Your task to perform on an android device: uninstall "Contacts" Image 0: 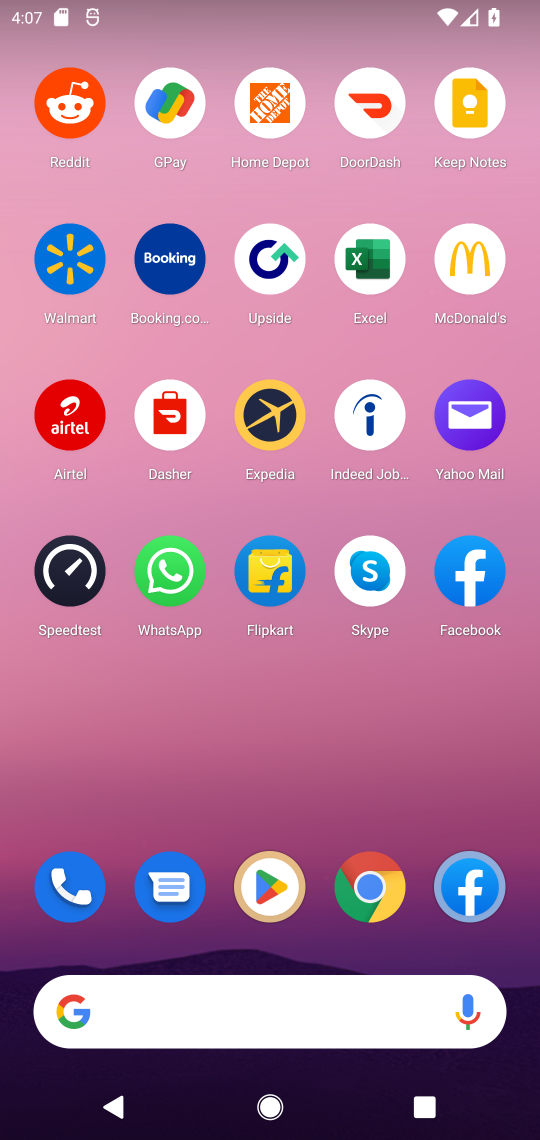
Step 0: click (251, 902)
Your task to perform on an android device: uninstall "Contacts" Image 1: 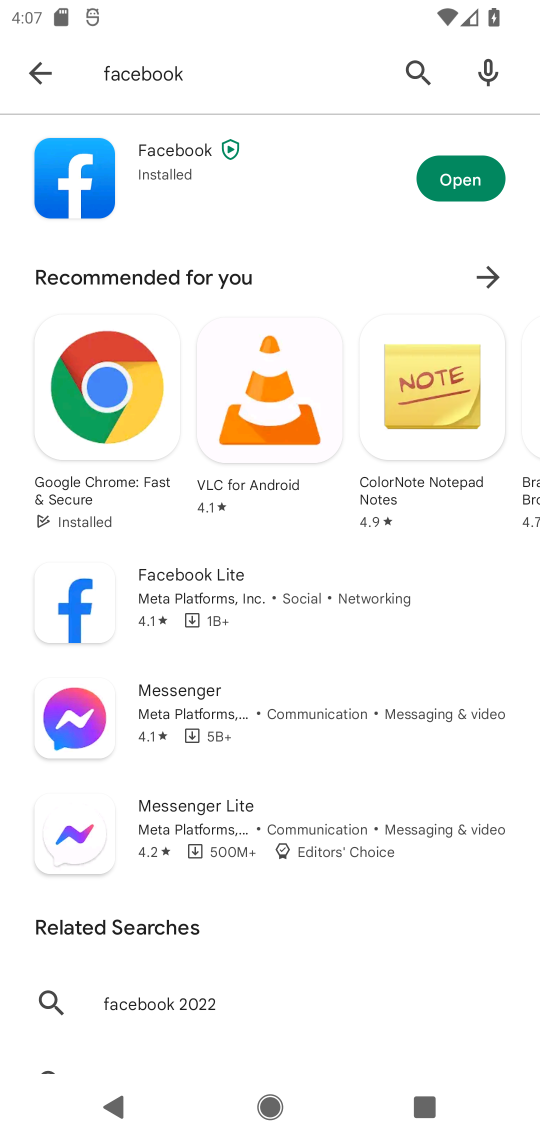
Step 1: click (34, 72)
Your task to perform on an android device: uninstall "Contacts" Image 2: 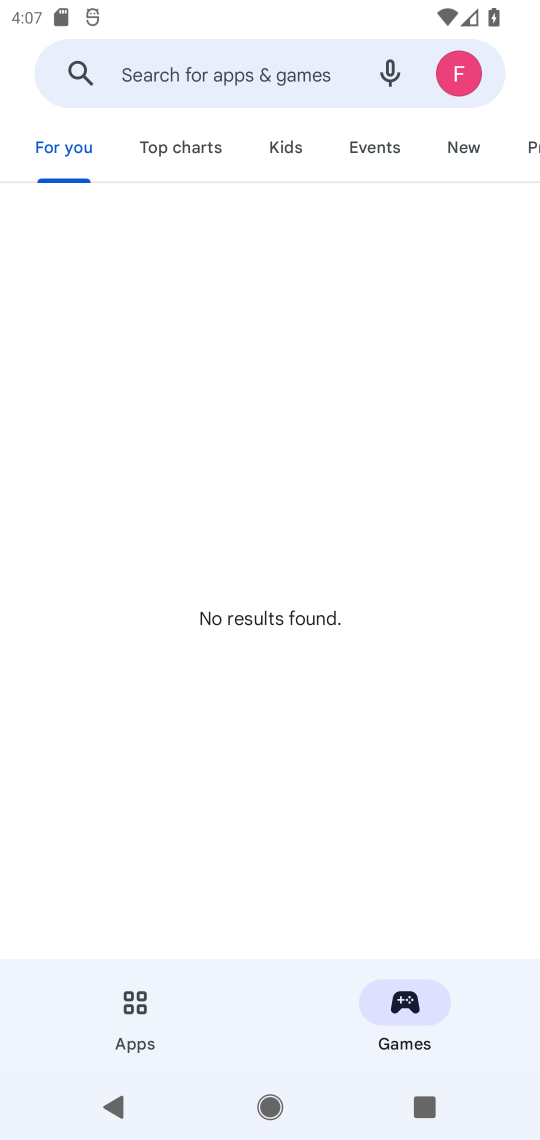
Step 2: click (277, 82)
Your task to perform on an android device: uninstall "Contacts" Image 3: 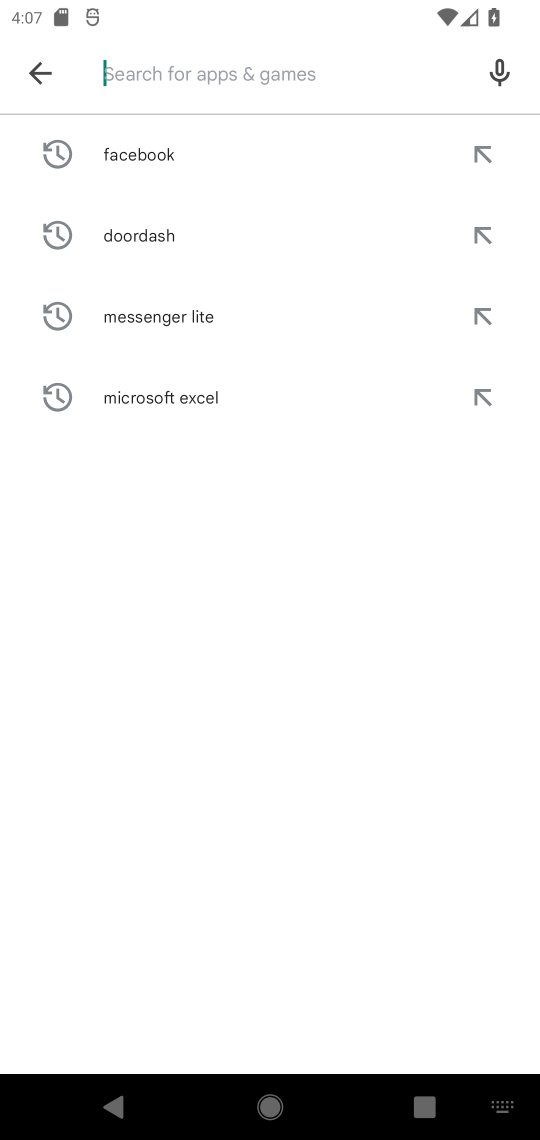
Step 3: type "Contacts"
Your task to perform on an android device: uninstall "Contacts" Image 4: 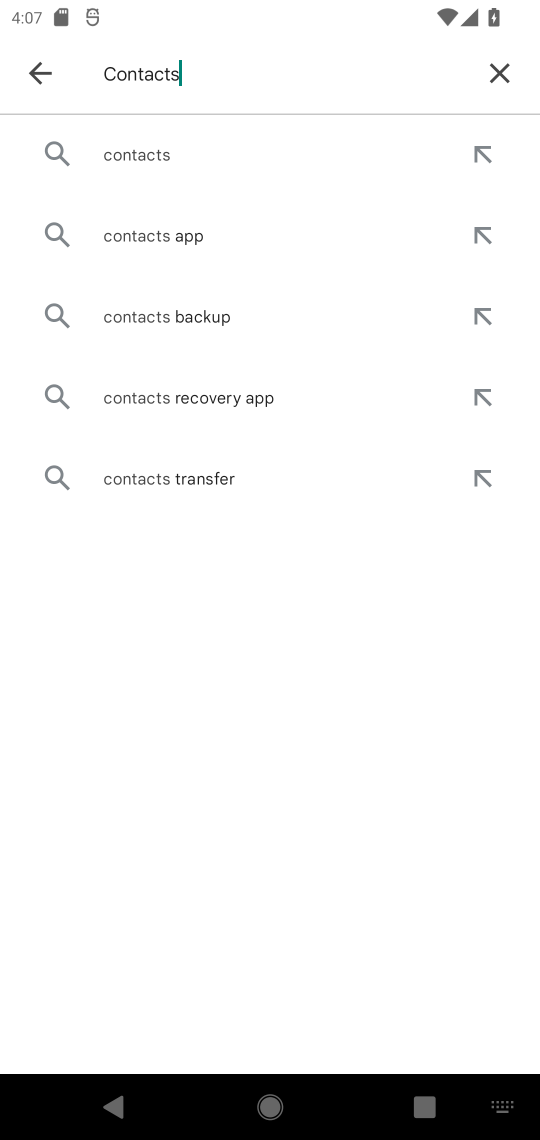
Step 4: click (133, 146)
Your task to perform on an android device: uninstall "Contacts" Image 5: 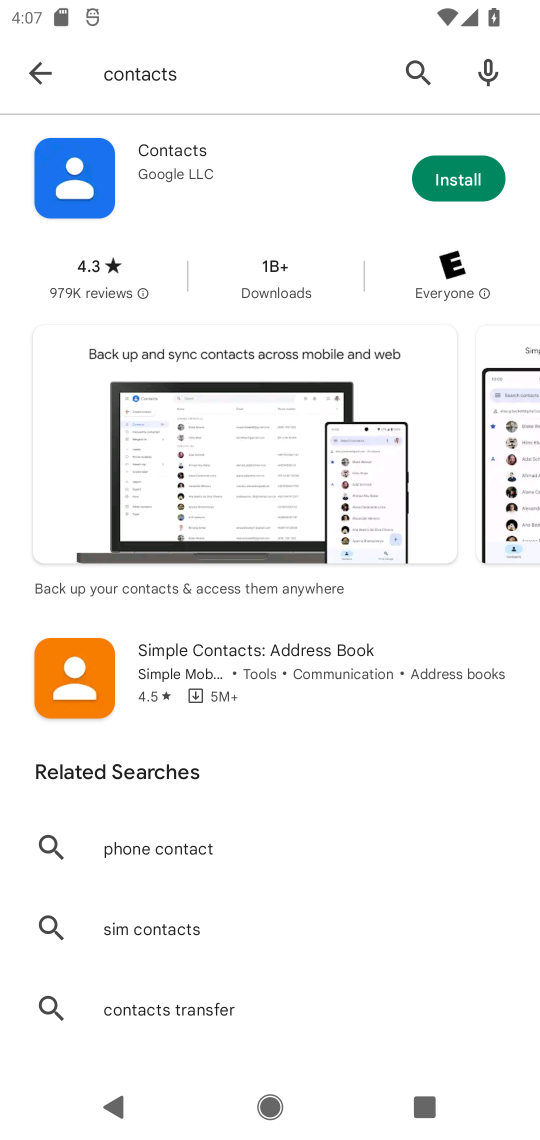
Step 5: task complete